Your task to perform on an android device: Add "asus zenbook" to the cart on amazon.com, then select checkout. Image 0: 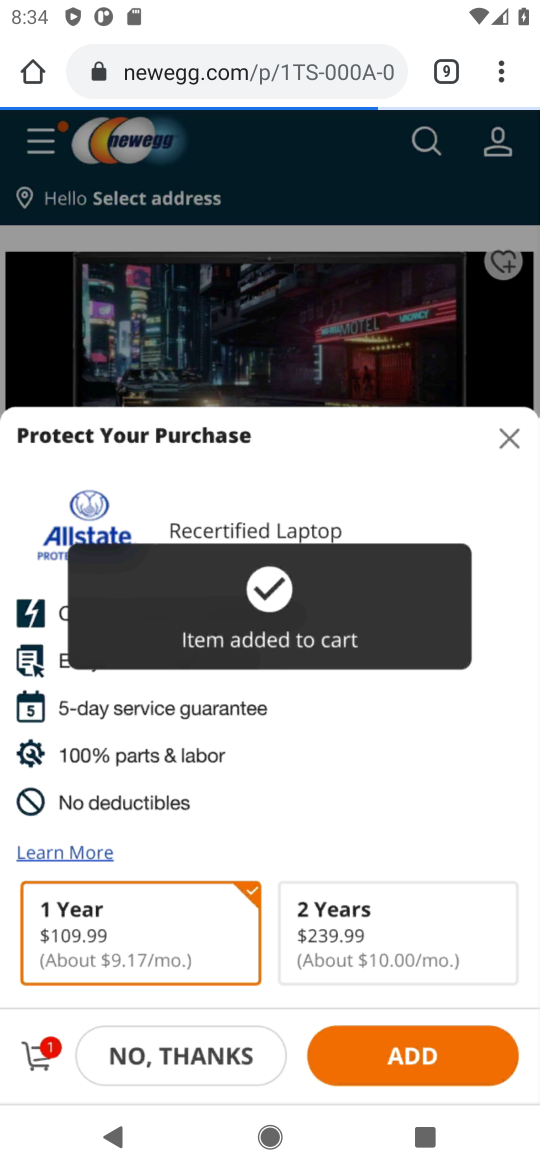
Step 0: press home button
Your task to perform on an android device: Add "asus zenbook" to the cart on amazon.com, then select checkout. Image 1: 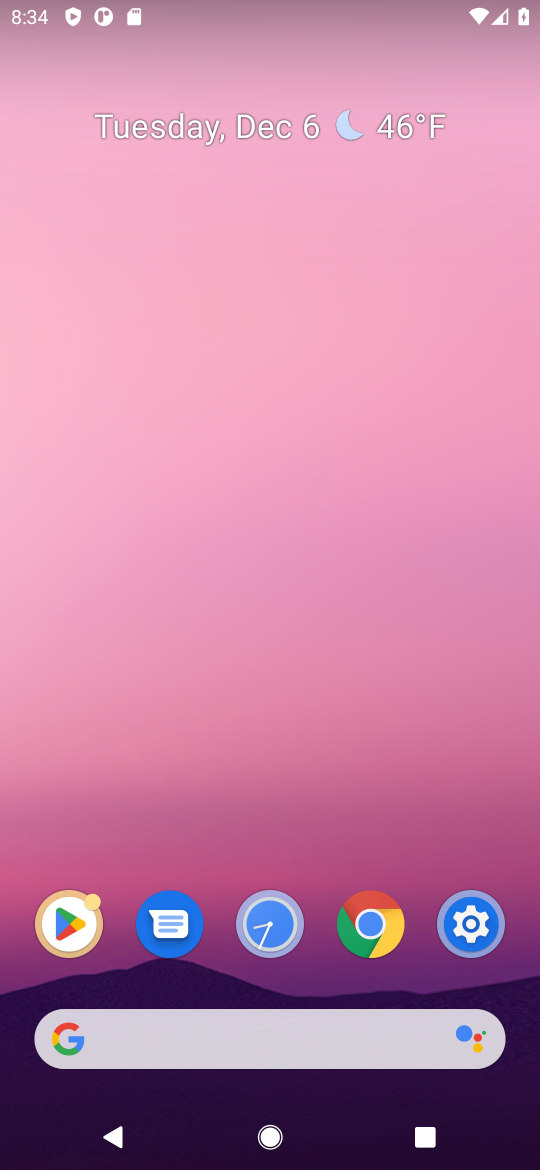
Step 1: click (237, 1041)
Your task to perform on an android device: Add "asus zenbook" to the cart on amazon.com, then select checkout. Image 2: 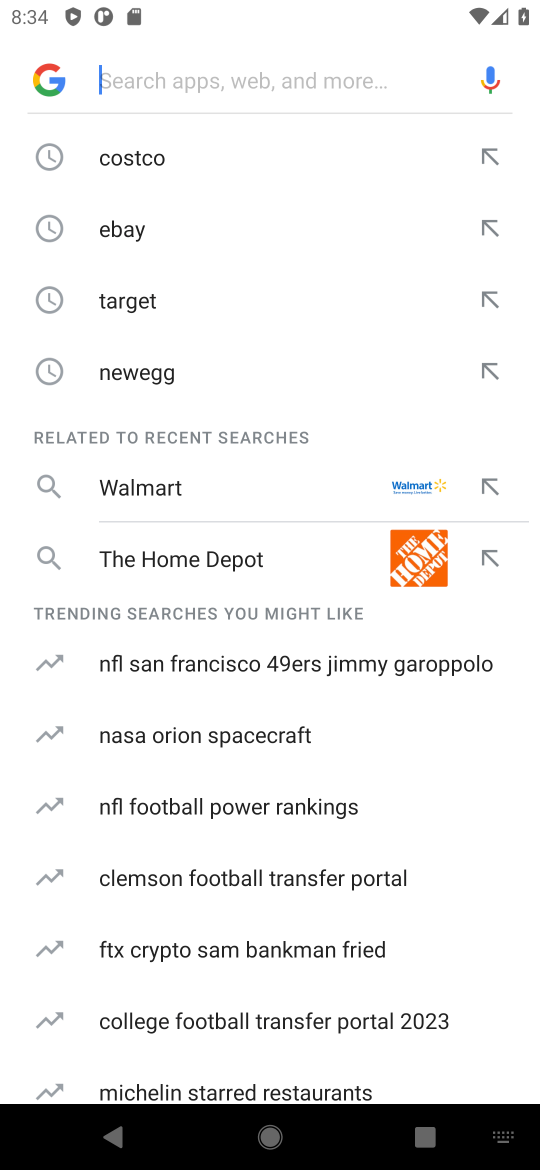
Step 2: type "asus zenbook"
Your task to perform on an android device: Add "asus zenbook" to the cart on amazon.com, then select checkout. Image 3: 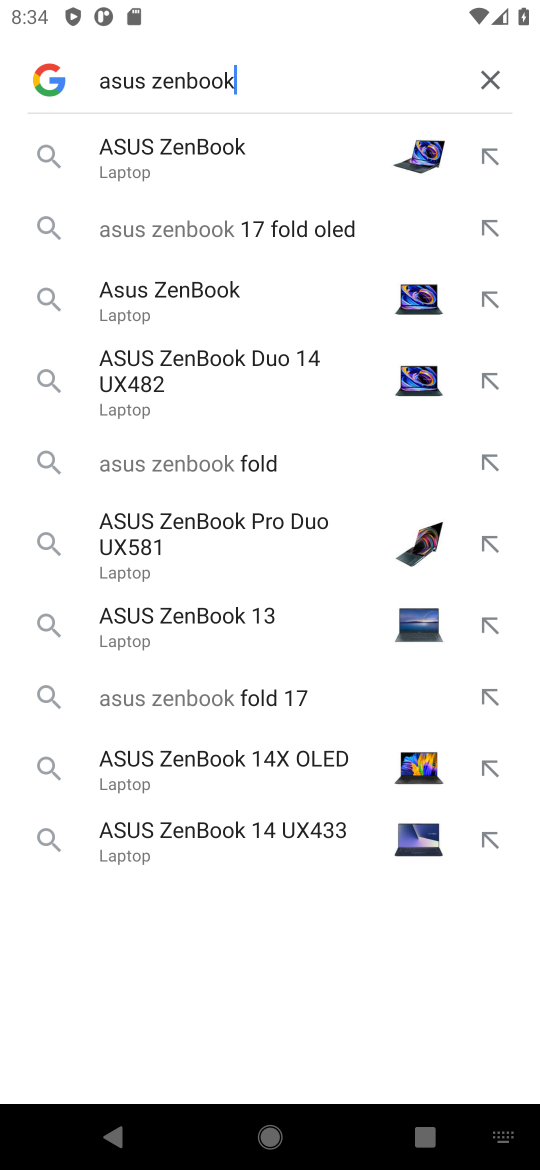
Step 3: click (200, 135)
Your task to perform on an android device: Add "asus zenbook" to the cart on amazon.com, then select checkout. Image 4: 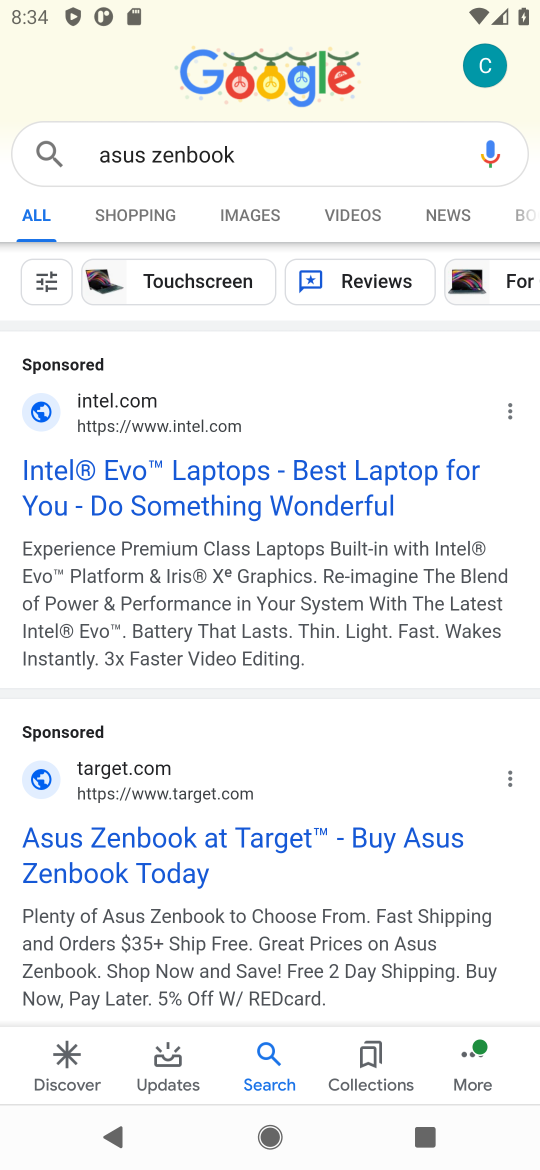
Step 4: click (314, 511)
Your task to perform on an android device: Add "asus zenbook" to the cart on amazon.com, then select checkout. Image 5: 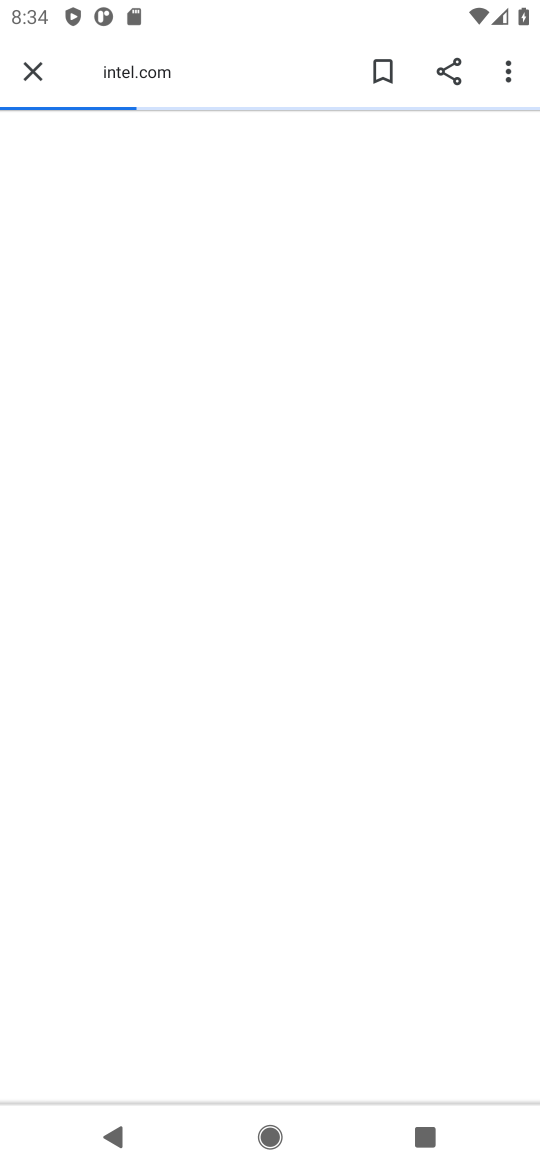
Step 5: task complete